Your task to perform on an android device: turn off smart reply in the gmail app Image 0: 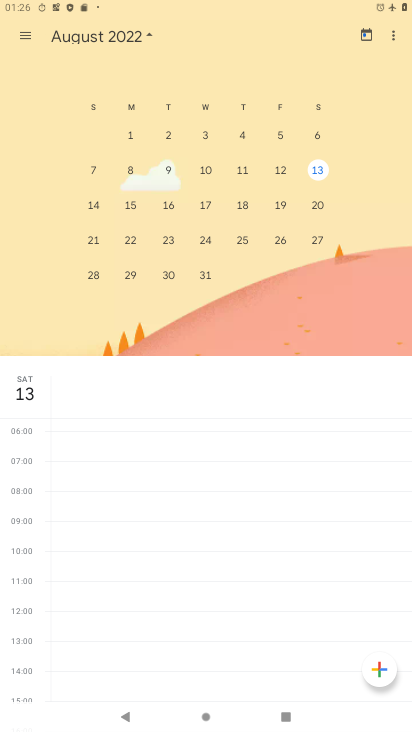
Step 0: press home button
Your task to perform on an android device: turn off smart reply in the gmail app Image 1: 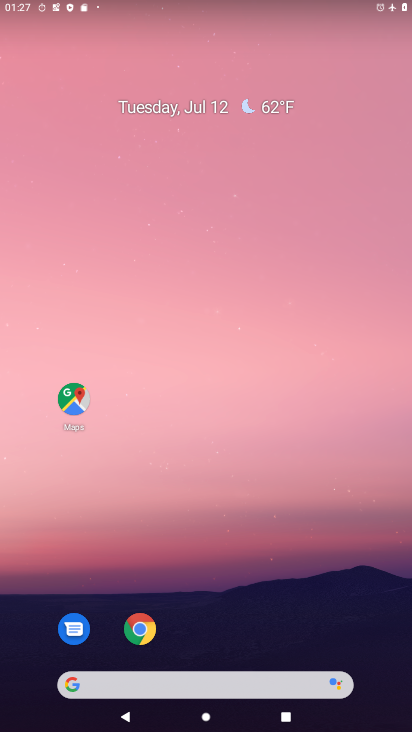
Step 1: drag from (232, 595) to (290, 55)
Your task to perform on an android device: turn off smart reply in the gmail app Image 2: 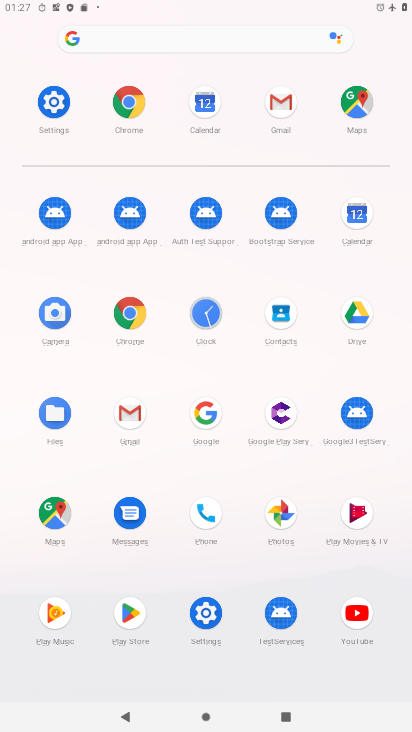
Step 2: click (139, 398)
Your task to perform on an android device: turn off smart reply in the gmail app Image 3: 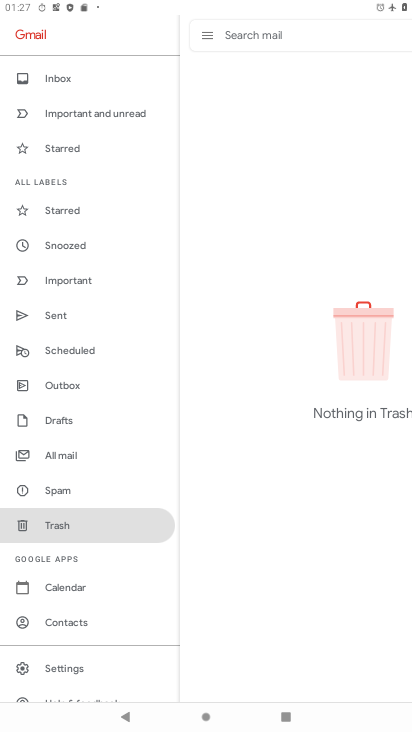
Step 3: drag from (122, 487) to (94, 9)
Your task to perform on an android device: turn off smart reply in the gmail app Image 4: 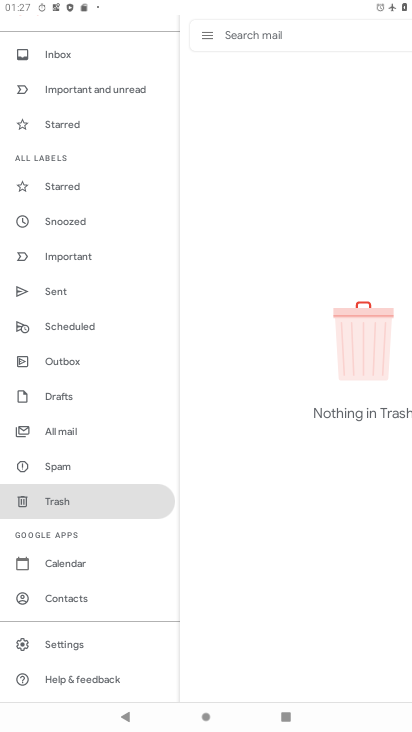
Step 4: click (50, 650)
Your task to perform on an android device: turn off smart reply in the gmail app Image 5: 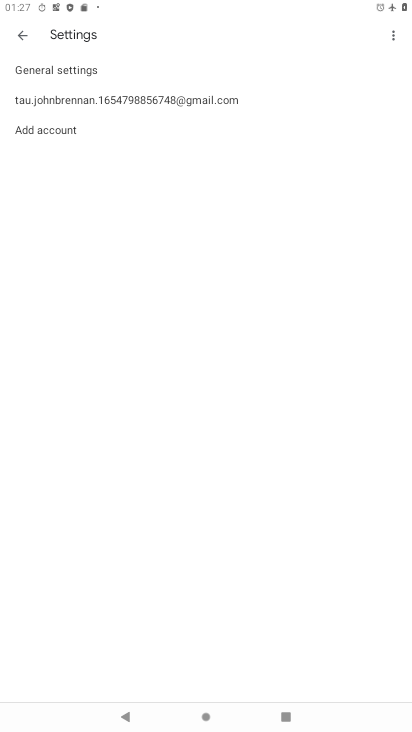
Step 5: click (143, 95)
Your task to perform on an android device: turn off smart reply in the gmail app Image 6: 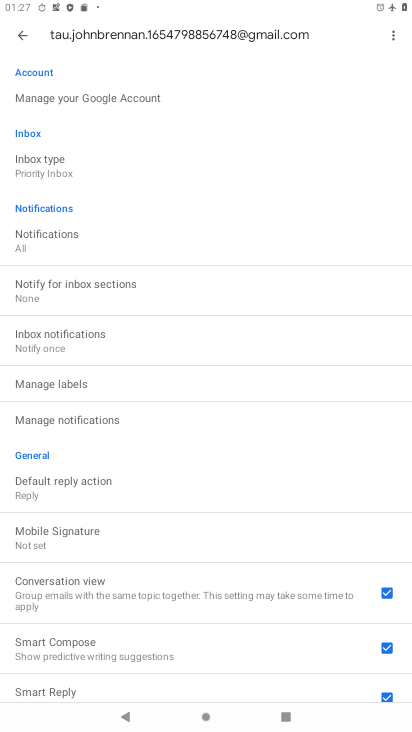
Step 6: drag from (179, 659) to (179, 299)
Your task to perform on an android device: turn off smart reply in the gmail app Image 7: 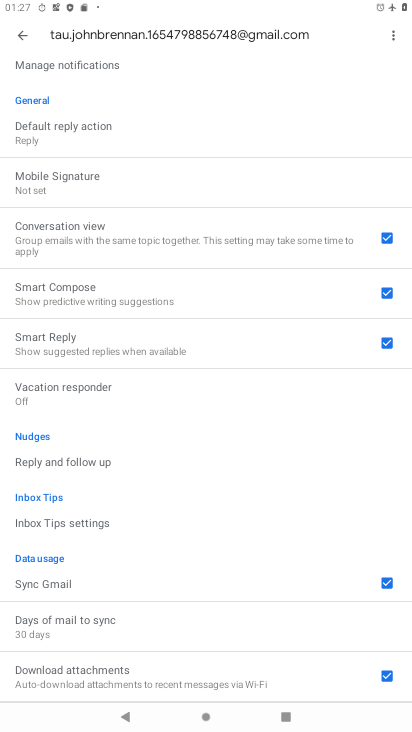
Step 7: click (371, 336)
Your task to perform on an android device: turn off smart reply in the gmail app Image 8: 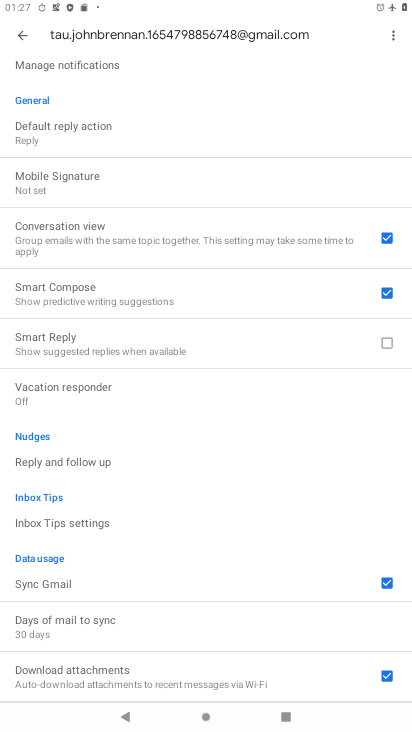
Step 8: task complete